Your task to perform on an android device: Open the map Image 0: 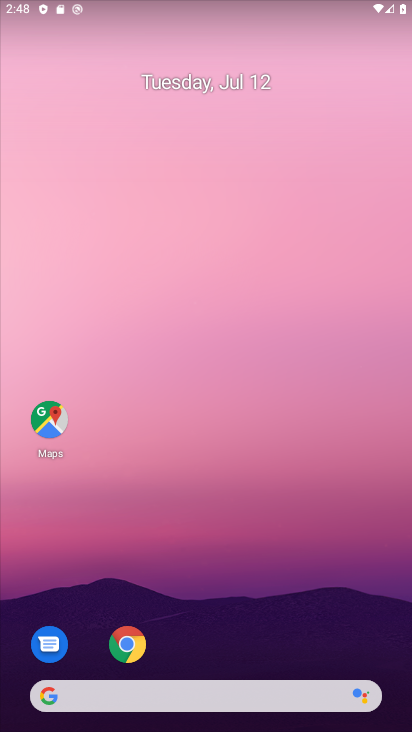
Step 0: click (41, 425)
Your task to perform on an android device: Open the map Image 1: 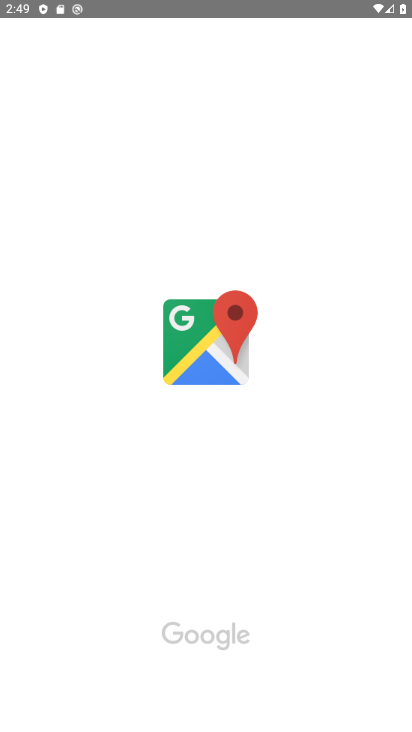
Step 1: task complete